Your task to perform on an android device: Set the phone to "Do not disturb". Image 0: 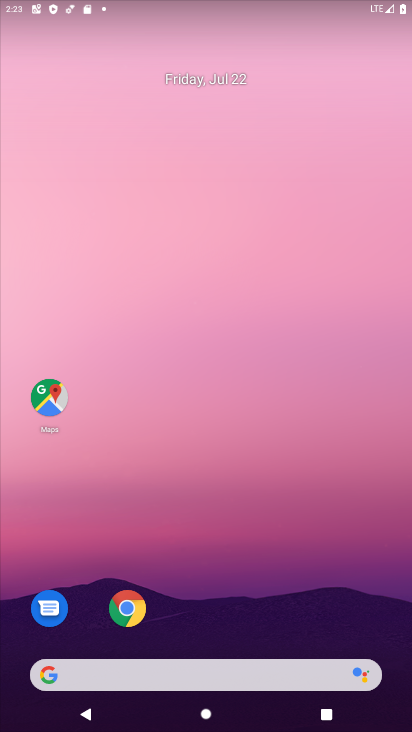
Step 0: drag from (388, 686) to (252, 74)
Your task to perform on an android device: Set the phone to "Do not disturb". Image 1: 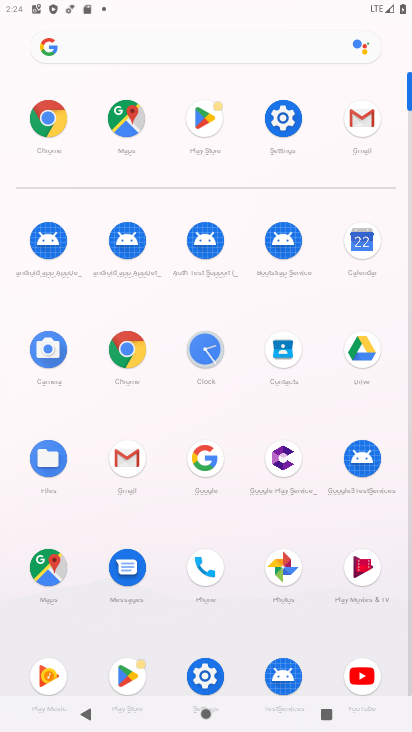
Step 1: click (295, 106)
Your task to perform on an android device: Set the phone to "Do not disturb". Image 2: 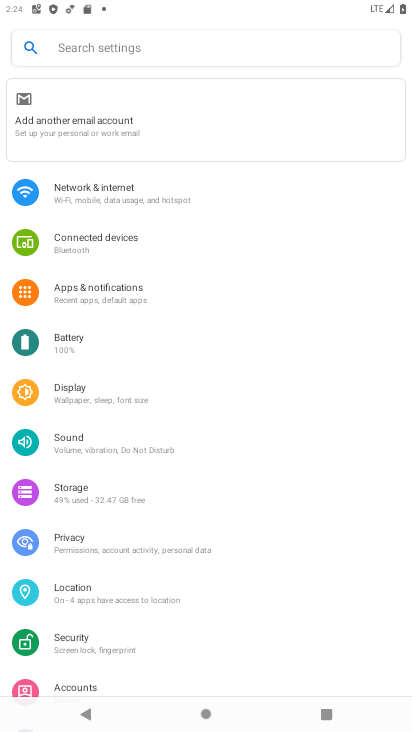
Step 2: drag from (266, 566) to (261, 316)
Your task to perform on an android device: Set the phone to "Do not disturb". Image 3: 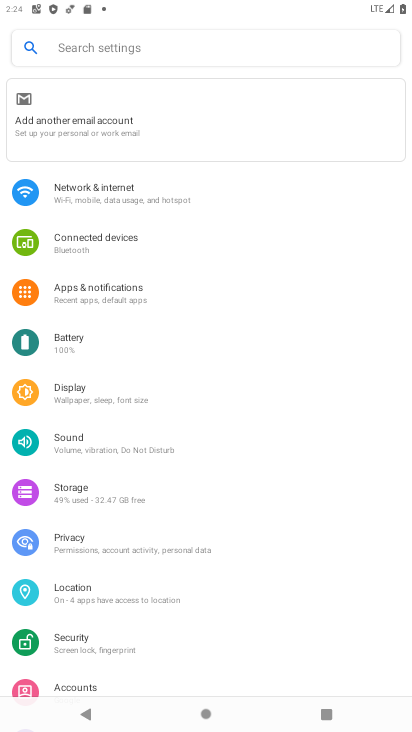
Step 3: click (64, 440)
Your task to perform on an android device: Set the phone to "Do not disturb". Image 4: 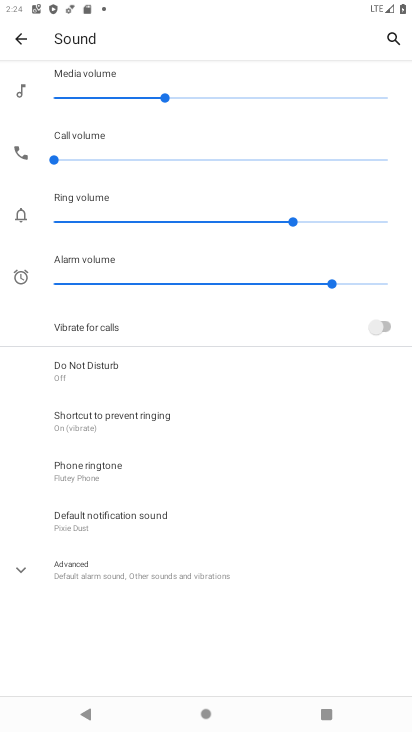
Step 4: click (79, 368)
Your task to perform on an android device: Set the phone to "Do not disturb". Image 5: 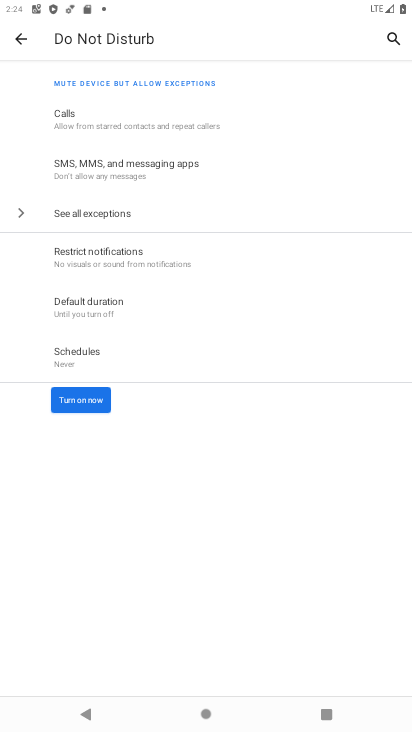
Step 5: click (73, 368)
Your task to perform on an android device: Set the phone to "Do not disturb". Image 6: 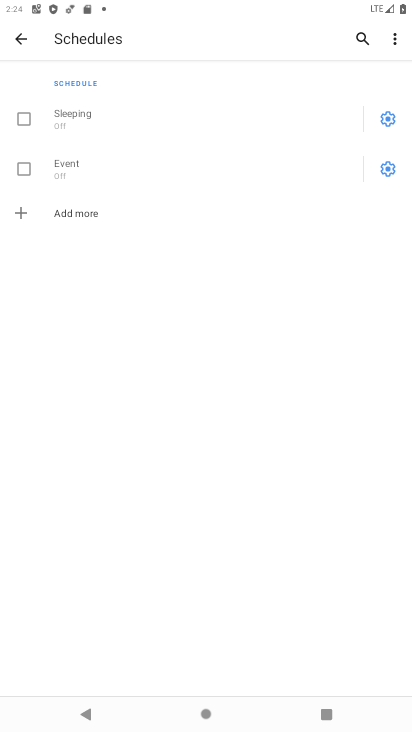
Step 6: click (79, 401)
Your task to perform on an android device: Set the phone to "Do not disturb". Image 7: 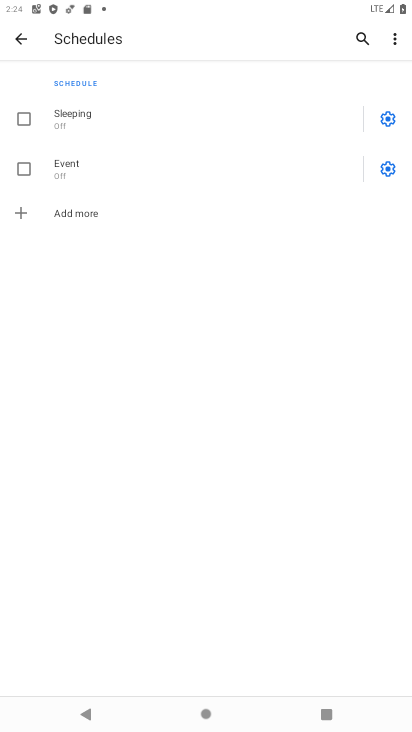
Step 7: task complete